Your task to perform on an android device: Toggle the flashlight Image 0: 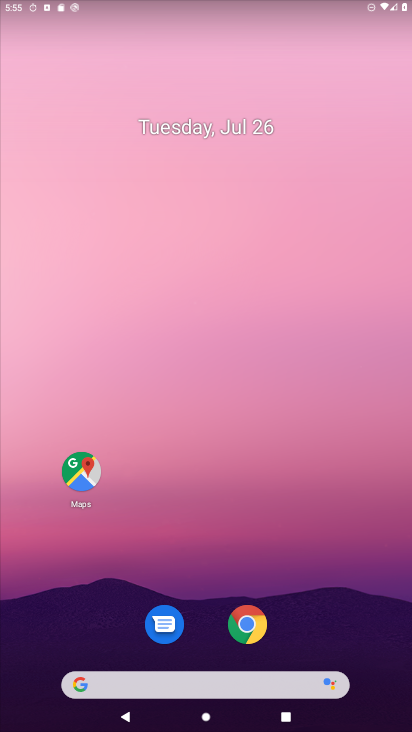
Step 0: drag from (241, 7) to (301, 642)
Your task to perform on an android device: Toggle the flashlight Image 1: 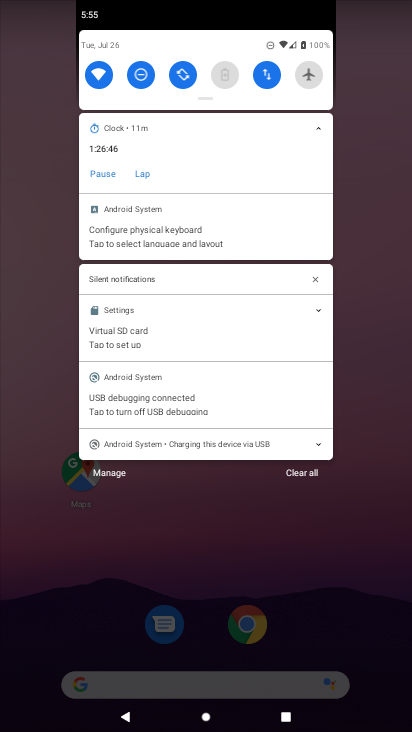
Step 1: task complete